Your task to perform on an android device: Open Google Maps and go to "Timeline" Image 0: 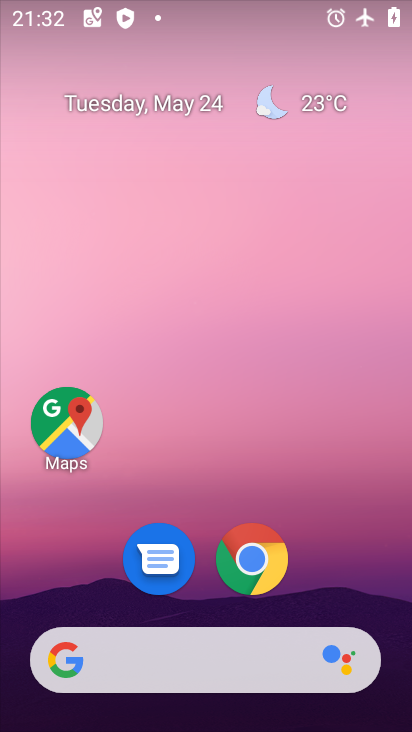
Step 0: drag from (362, 567) to (309, 139)
Your task to perform on an android device: Open Google Maps and go to "Timeline" Image 1: 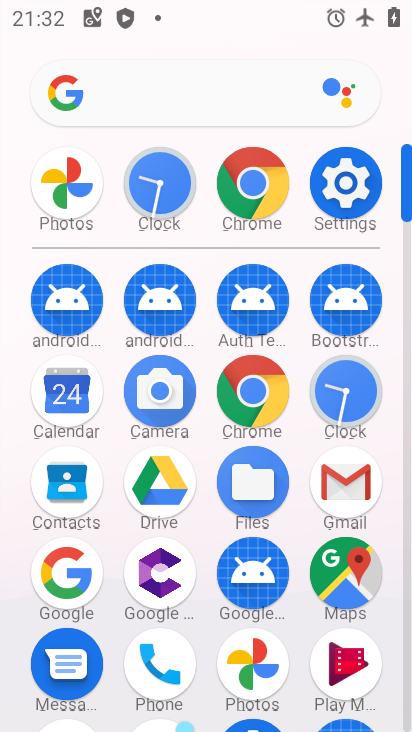
Step 1: click (345, 568)
Your task to perform on an android device: Open Google Maps and go to "Timeline" Image 2: 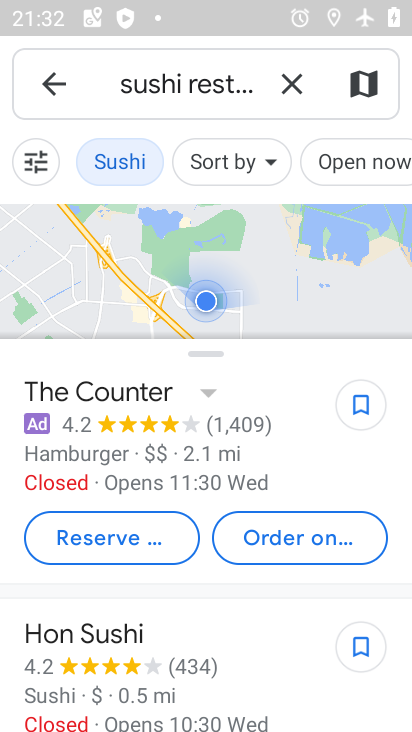
Step 2: click (55, 83)
Your task to perform on an android device: Open Google Maps and go to "Timeline" Image 3: 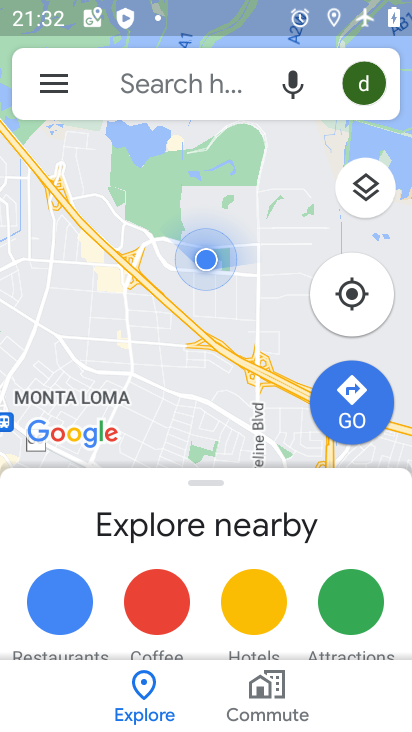
Step 3: click (56, 83)
Your task to perform on an android device: Open Google Maps and go to "Timeline" Image 4: 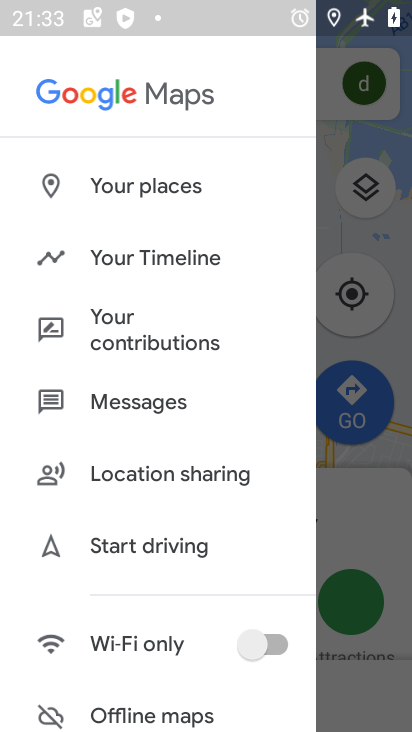
Step 4: click (176, 268)
Your task to perform on an android device: Open Google Maps and go to "Timeline" Image 5: 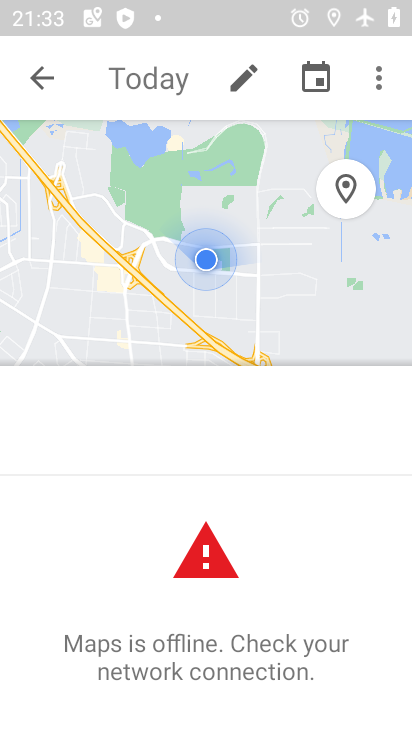
Step 5: task complete